Your task to perform on an android device: move a message to another label in the gmail app Image 0: 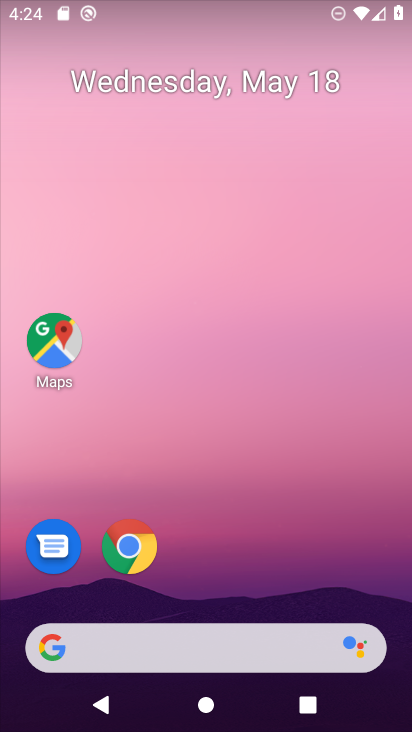
Step 0: drag from (220, 603) to (307, 5)
Your task to perform on an android device: move a message to another label in the gmail app Image 1: 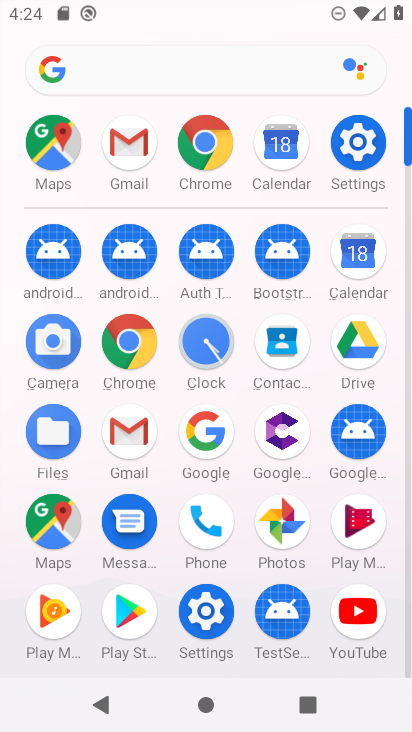
Step 1: click (135, 443)
Your task to perform on an android device: move a message to another label in the gmail app Image 2: 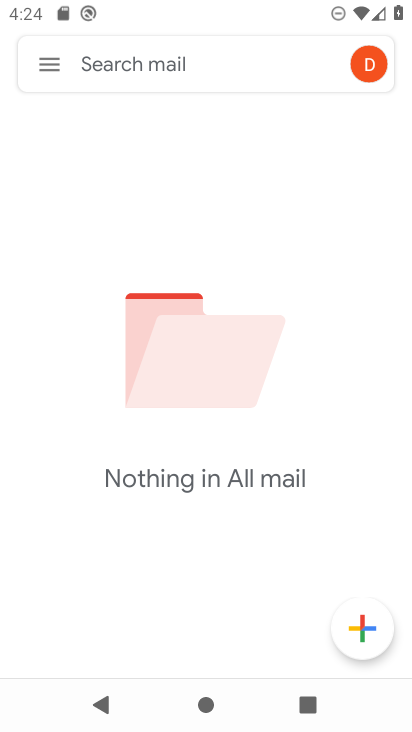
Step 2: task complete